Your task to perform on an android device: find which apps use the phone's location Image 0: 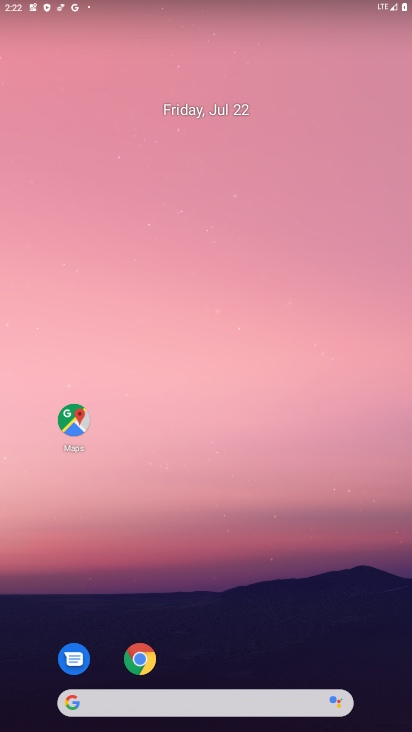
Step 0: drag from (190, 497) to (166, 175)
Your task to perform on an android device: find which apps use the phone's location Image 1: 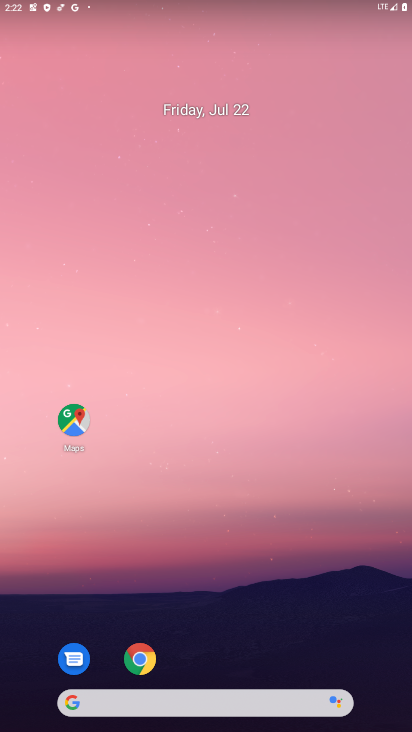
Step 1: drag from (201, 595) to (201, 223)
Your task to perform on an android device: find which apps use the phone's location Image 2: 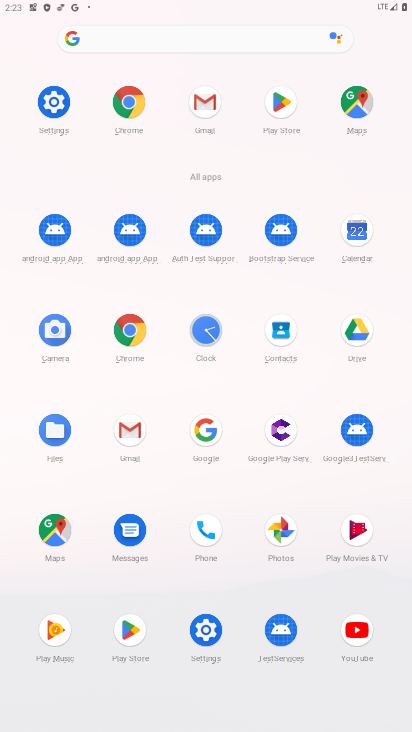
Step 2: click (207, 636)
Your task to perform on an android device: find which apps use the phone's location Image 3: 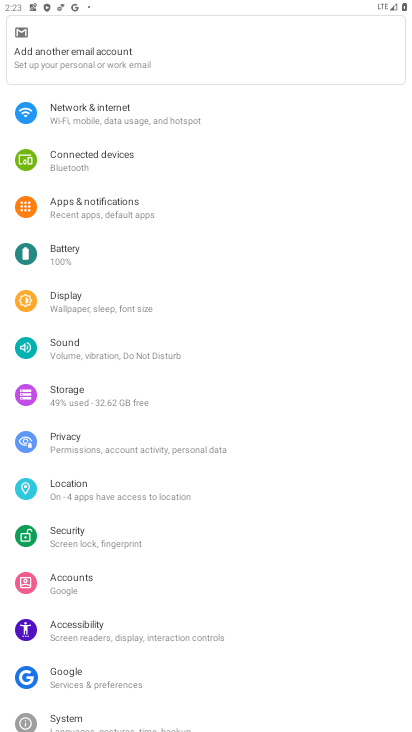
Step 3: click (82, 210)
Your task to perform on an android device: find which apps use the phone's location Image 4: 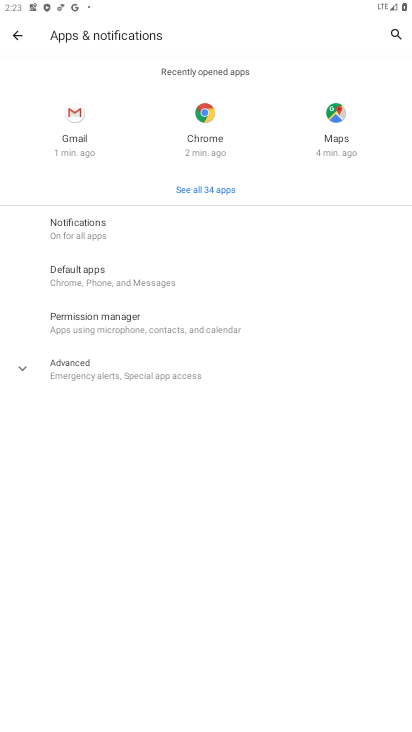
Step 4: click (12, 26)
Your task to perform on an android device: find which apps use the phone's location Image 5: 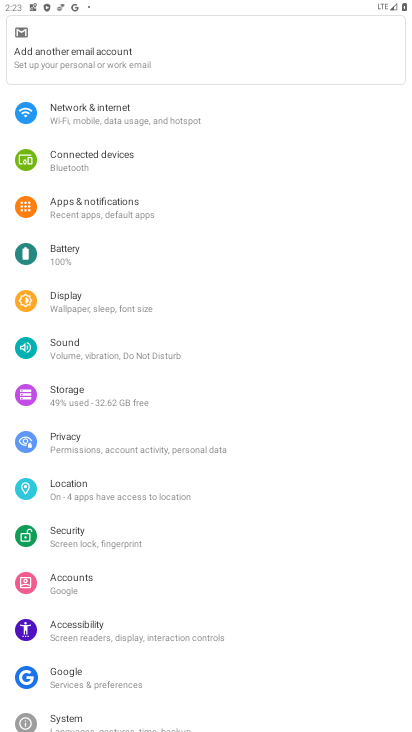
Step 5: click (67, 481)
Your task to perform on an android device: find which apps use the phone's location Image 6: 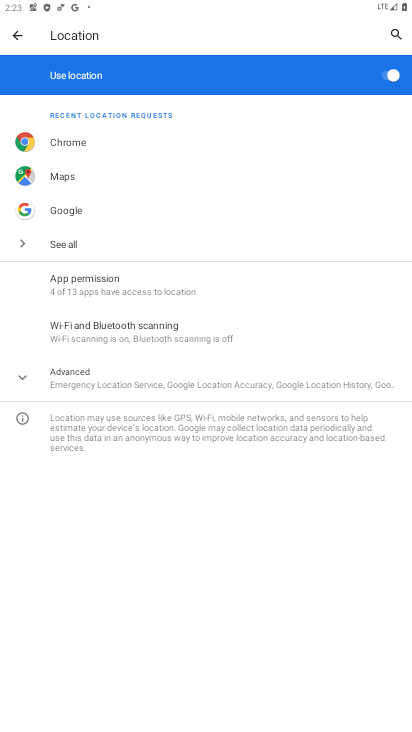
Step 6: click (112, 371)
Your task to perform on an android device: find which apps use the phone's location Image 7: 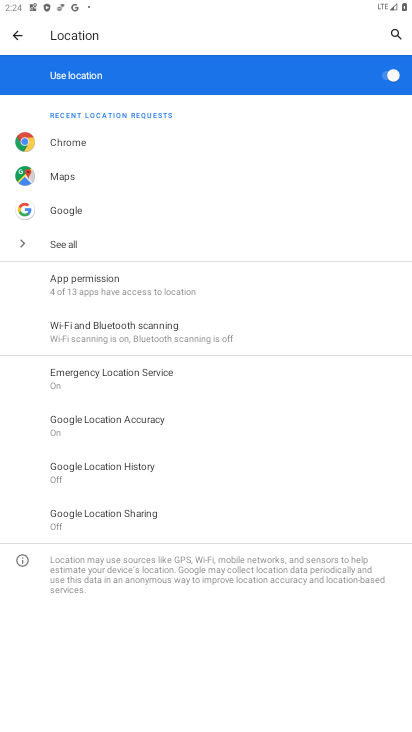
Step 7: click (174, 297)
Your task to perform on an android device: find which apps use the phone's location Image 8: 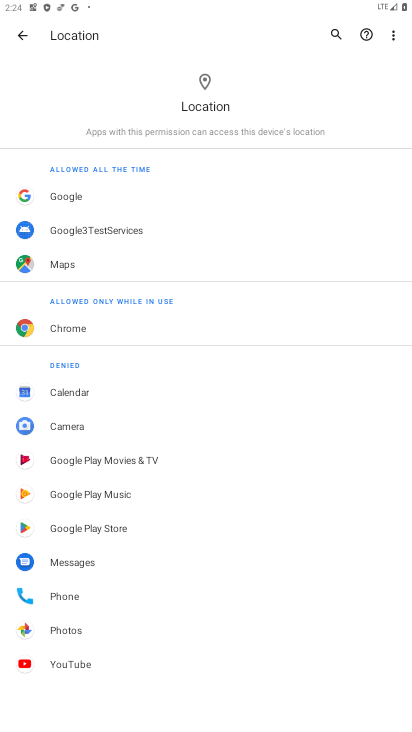
Step 8: task complete